Your task to perform on an android device: Play the last video I watched on Youtube Image 0: 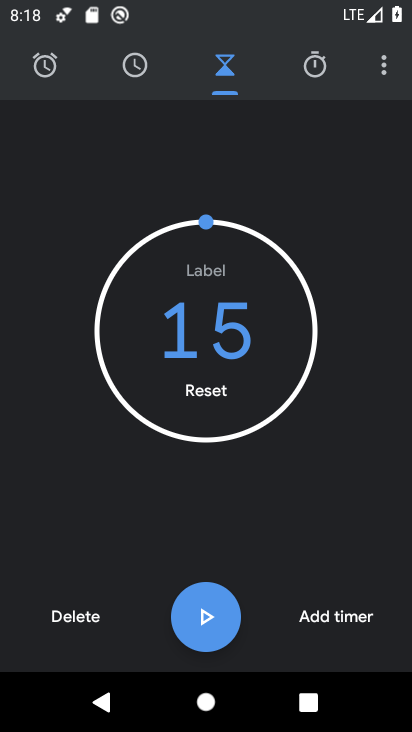
Step 0: press home button
Your task to perform on an android device: Play the last video I watched on Youtube Image 1: 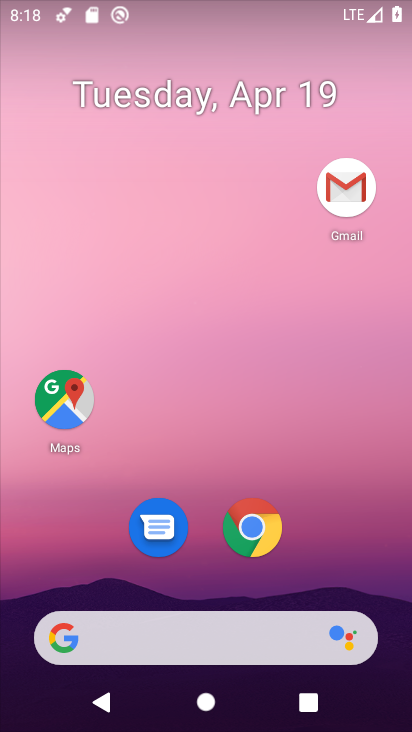
Step 1: drag from (313, 586) to (240, 92)
Your task to perform on an android device: Play the last video I watched on Youtube Image 2: 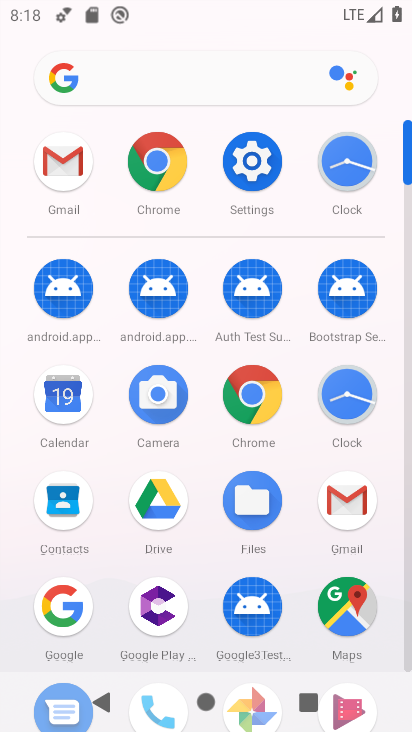
Step 2: drag from (269, 291) to (273, 154)
Your task to perform on an android device: Play the last video I watched on Youtube Image 3: 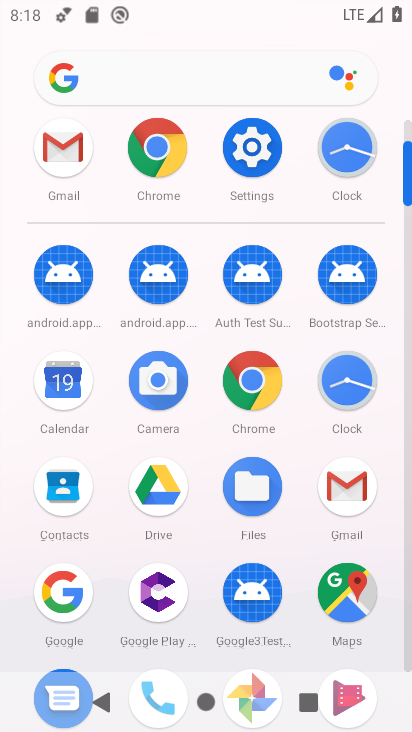
Step 3: drag from (209, 554) to (209, 170)
Your task to perform on an android device: Play the last video I watched on Youtube Image 4: 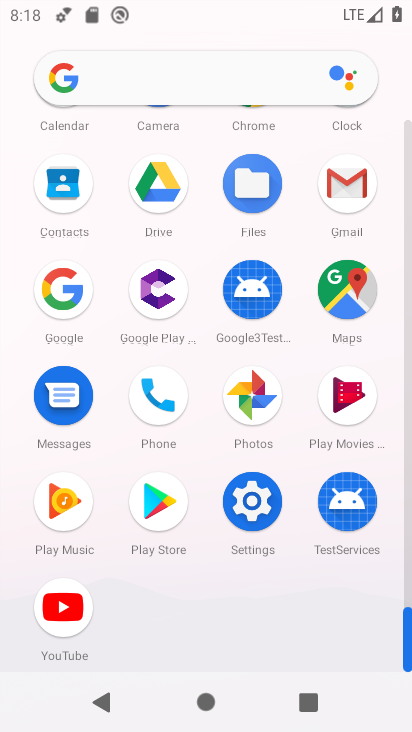
Step 4: click (57, 605)
Your task to perform on an android device: Play the last video I watched on Youtube Image 5: 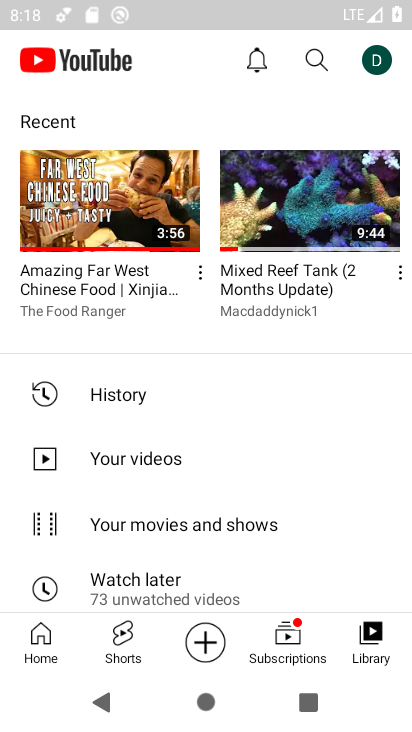
Step 5: click (140, 214)
Your task to perform on an android device: Play the last video I watched on Youtube Image 6: 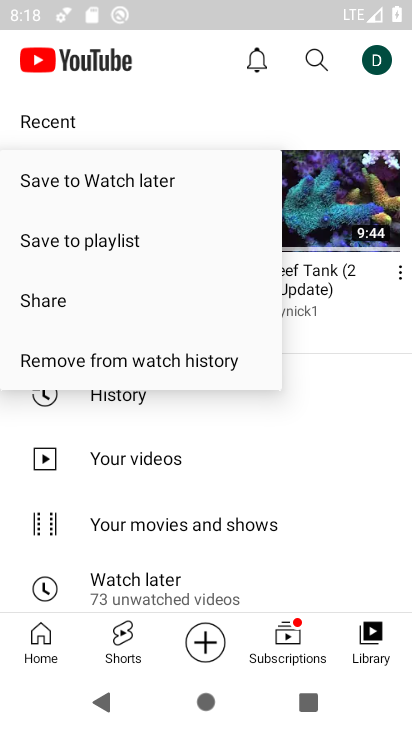
Step 6: click (297, 456)
Your task to perform on an android device: Play the last video I watched on Youtube Image 7: 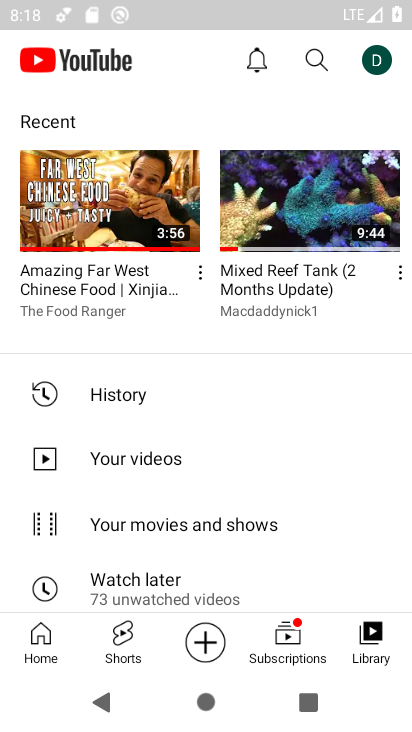
Step 7: click (137, 230)
Your task to perform on an android device: Play the last video I watched on Youtube Image 8: 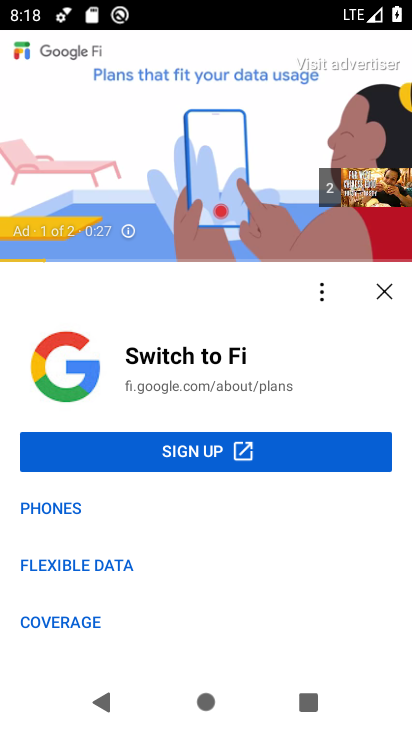
Step 8: click (380, 284)
Your task to perform on an android device: Play the last video I watched on Youtube Image 9: 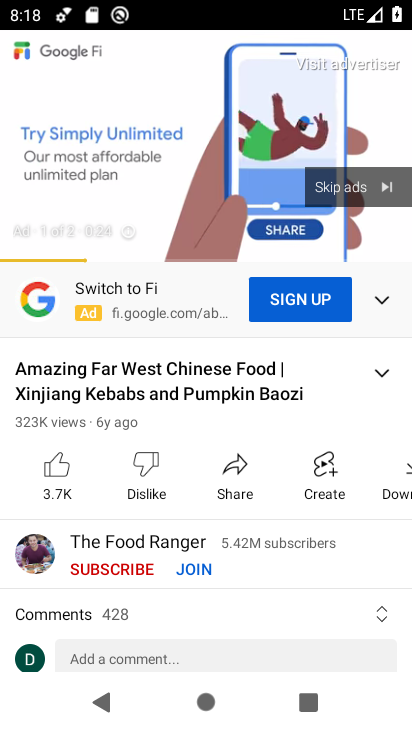
Step 9: click (345, 187)
Your task to perform on an android device: Play the last video I watched on Youtube Image 10: 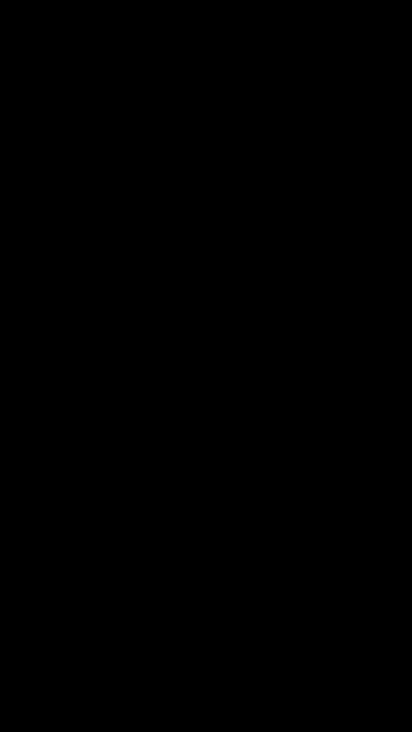
Step 10: click (263, 193)
Your task to perform on an android device: Play the last video I watched on Youtube Image 11: 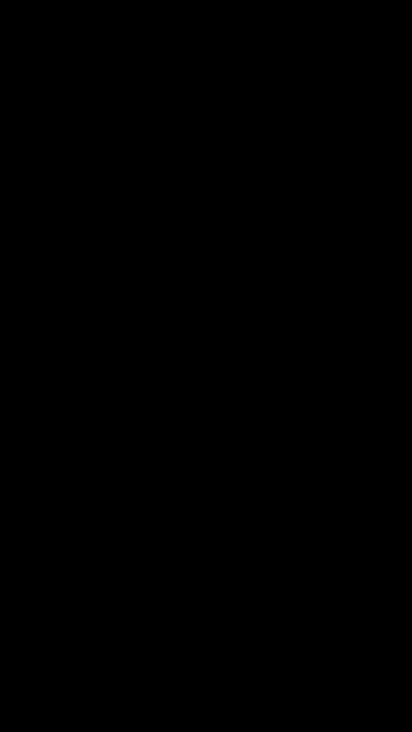
Step 11: click (263, 193)
Your task to perform on an android device: Play the last video I watched on Youtube Image 12: 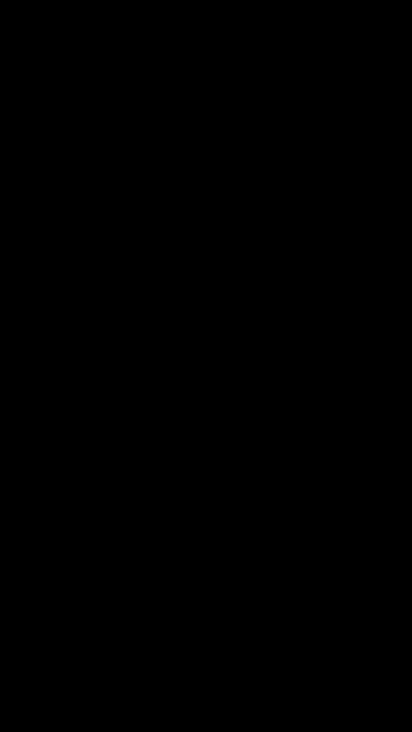
Step 12: click (263, 193)
Your task to perform on an android device: Play the last video I watched on Youtube Image 13: 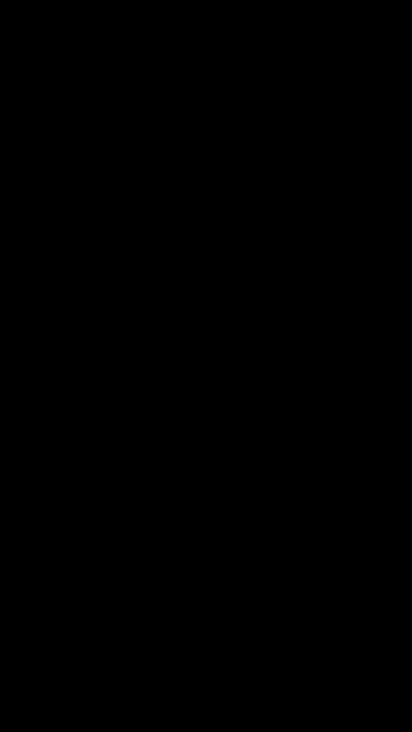
Step 13: task complete